Your task to perform on an android device: open chrome privacy settings Image 0: 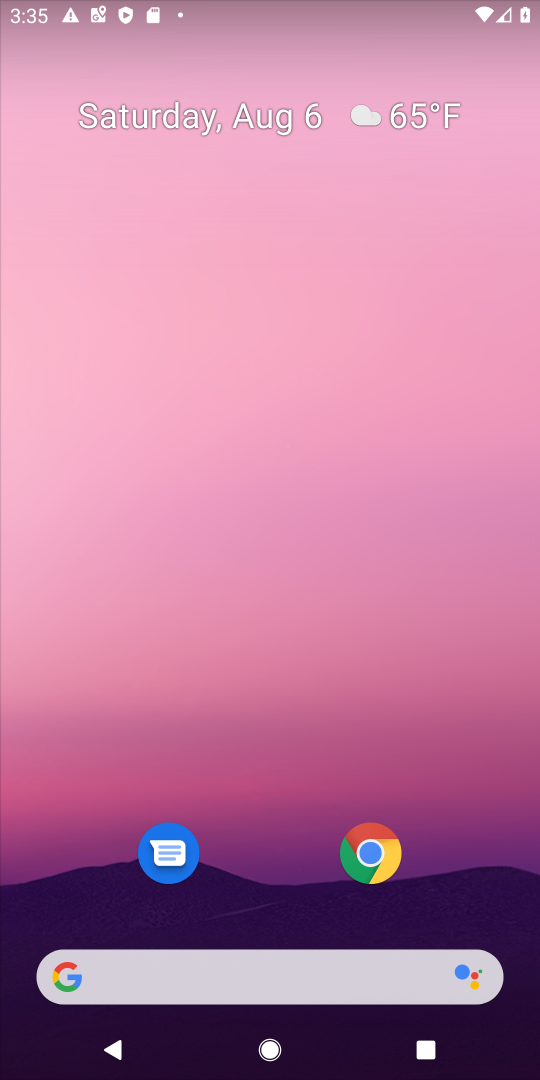
Step 0: click (366, 867)
Your task to perform on an android device: open chrome privacy settings Image 1: 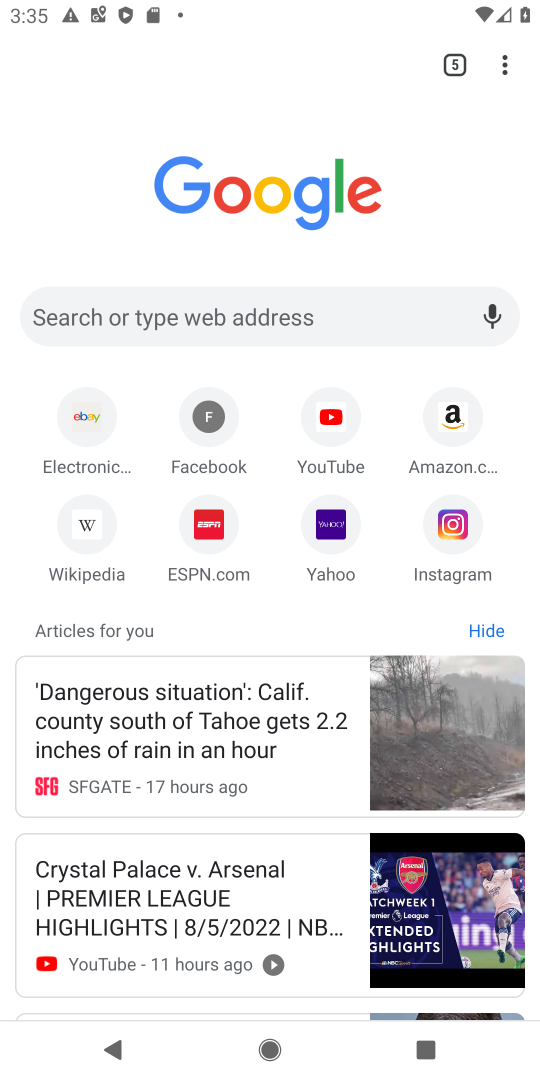
Step 1: drag from (503, 55) to (307, 537)
Your task to perform on an android device: open chrome privacy settings Image 2: 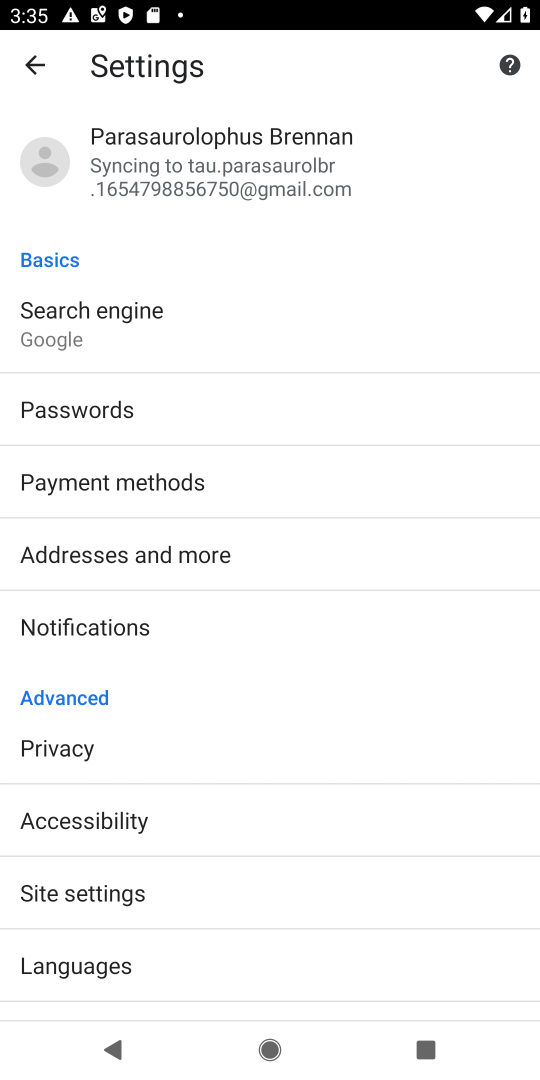
Step 2: click (61, 751)
Your task to perform on an android device: open chrome privacy settings Image 3: 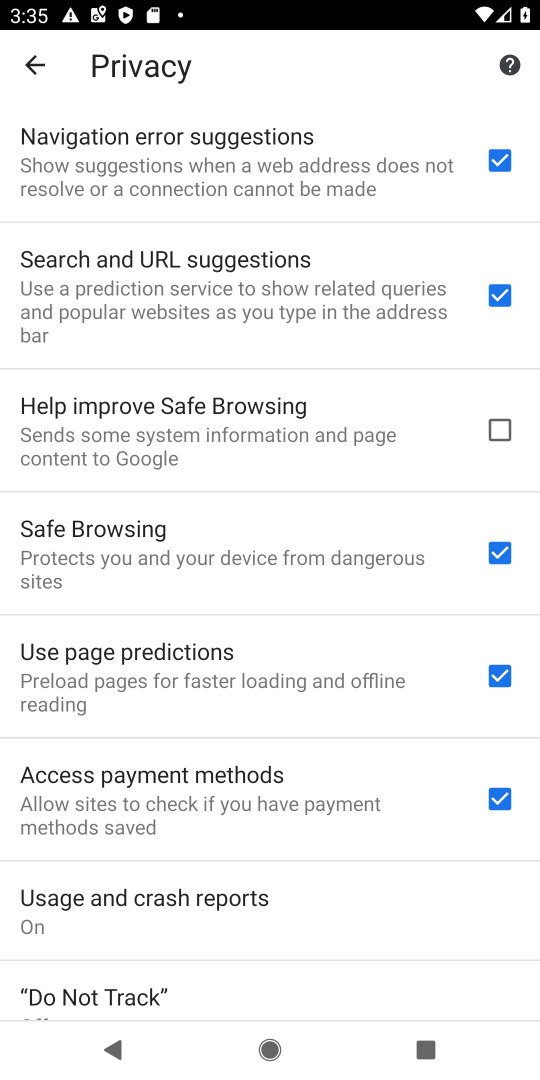
Step 3: task complete